Your task to perform on an android device: turn off notifications settings in the gmail app Image 0: 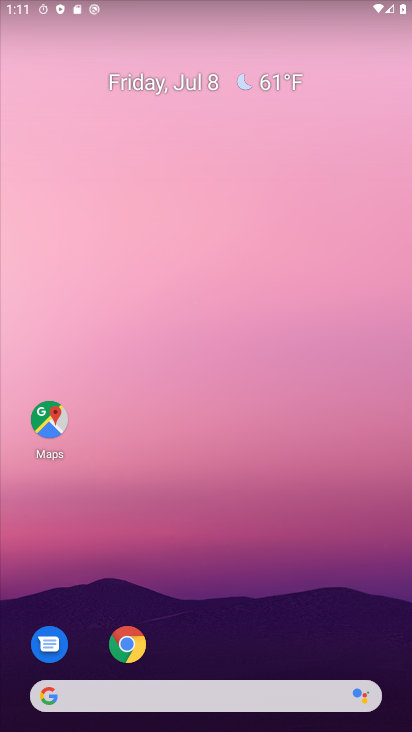
Step 0: drag from (172, 7) to (196, 74)
Your task to perform on an android device: turn off notifications settings in the gmail app Image 1: 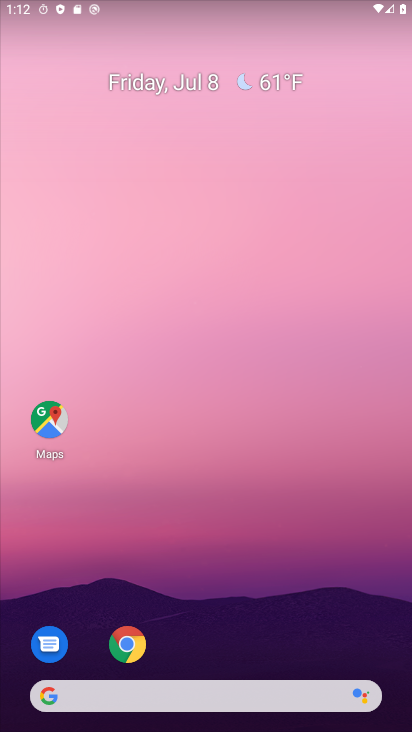
Step 1: click (206, 41)
Your task to perform on an android device: turn off notifications settings in the gmail app Image 2: 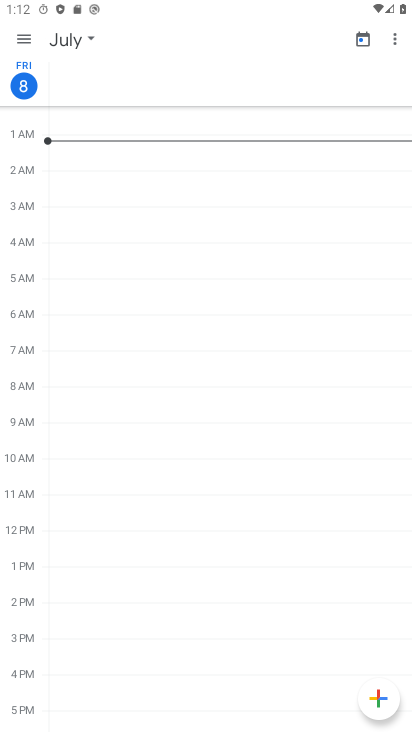
Step 2: press home button
Your task to perform on an android device: turn off notifications settings in the gmail app Image 3: 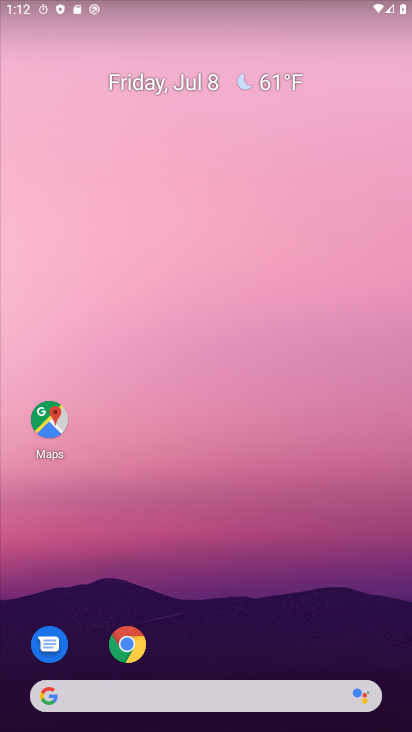
Step 3: click (210, 145)
Your task to perform on an android device: turn off notifications settings in the gmail app Image 4: 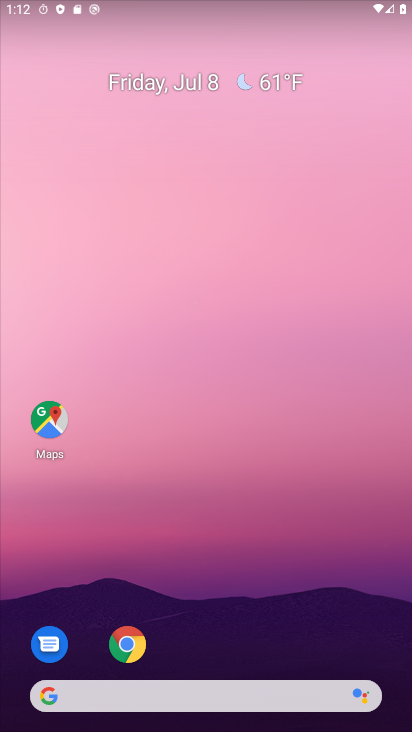
Step 4: drag from (180, 435) to (183, 0)
Your task to perform on an android device: turn off notifications settings in the gmail app Image 5: 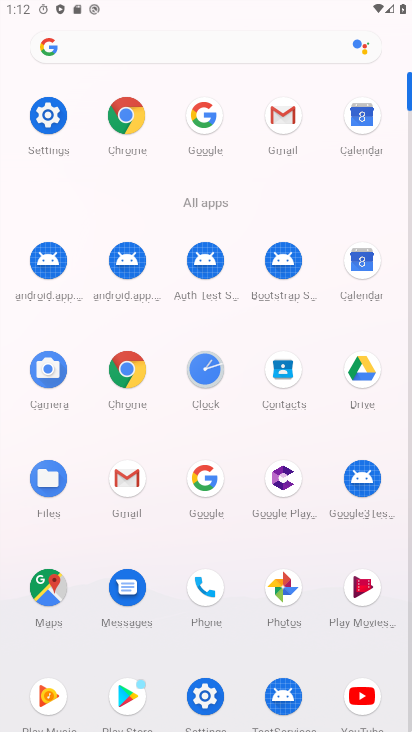
Step 5: click (283, 124)
Your task to perform on an android device: turn off notifications settings in the gmail app Image 6: 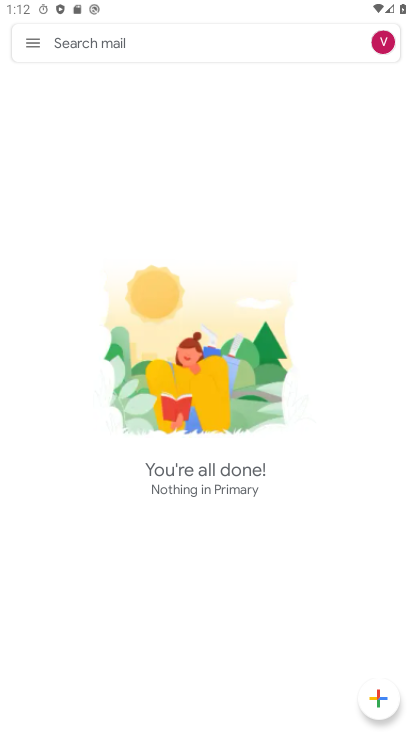
Step 6: click (37, 40)
Your task to perform on an android device: turn off notifications settings in the gmail app Image 7: 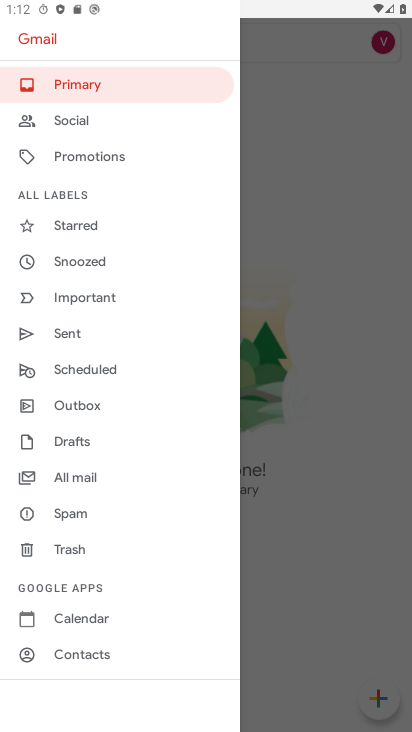
Step 7: drag from (86, 617) to (86, 440)
Your task to perform on an android device: turn off notifications settings in the gmail app Image 8: 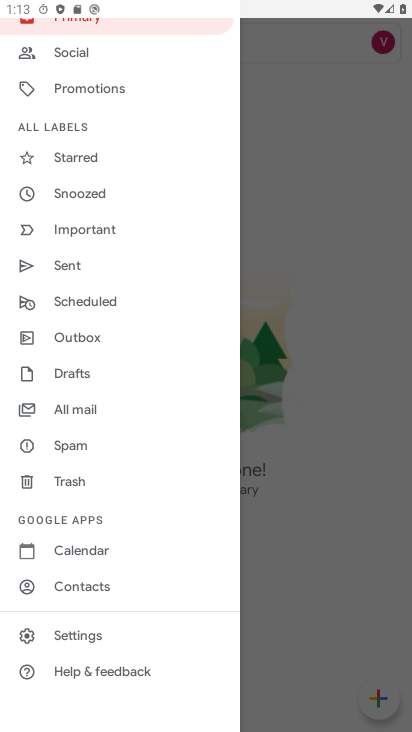
Step 8: click (79, 637)
Your task to perform on an android device: turn off notifications settings in the gmail app Image 9: 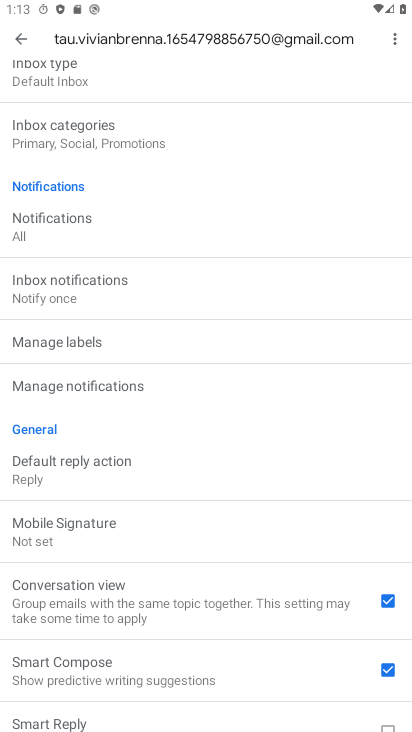
Step 9: click (61, 392)
Your task to perform on an android device: turn off notifications settings in the gmail app Image 10: 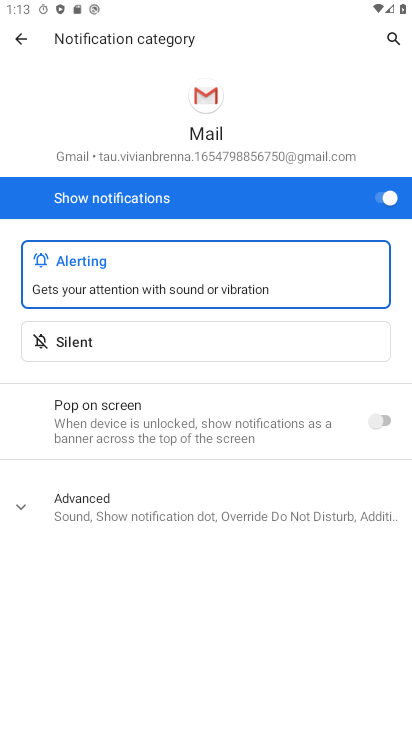
Step 10: click (376, 197)
Your task to perform on an android device: turn off notifications settings in the gmail app Image 11: 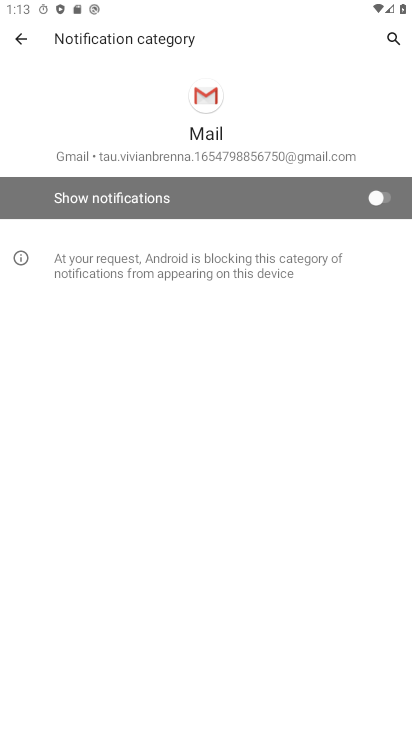
Step 11: task complete